Your task to perform on an android device: Do I have any events tomorrow? Image 0: 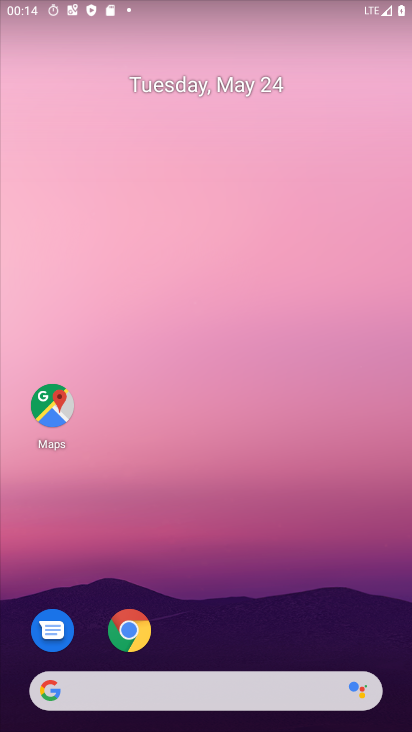
Step 0: drag from (254, 656) to (303, 0)
Your task to perform on an android device: Do I have any events tomorrow? Image 1: 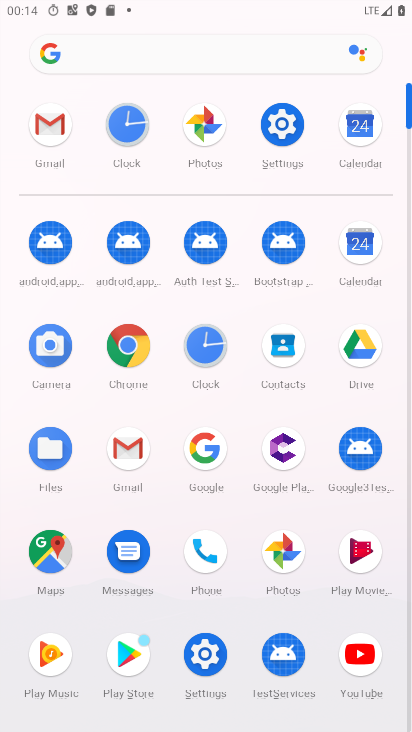
Step 1: click (363, 130)
Your task to perform on an android device: Do I have any events tomorrow? Image 2: 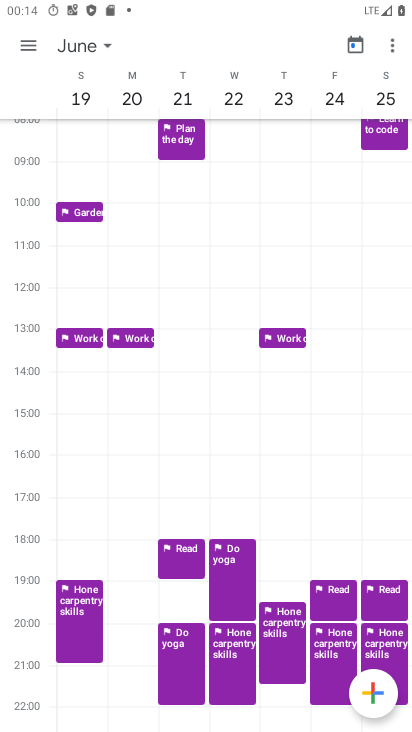
Step 2: click (355, 48)
Your task to perform on an android device: Do I have any events tomorrow? Image 3: 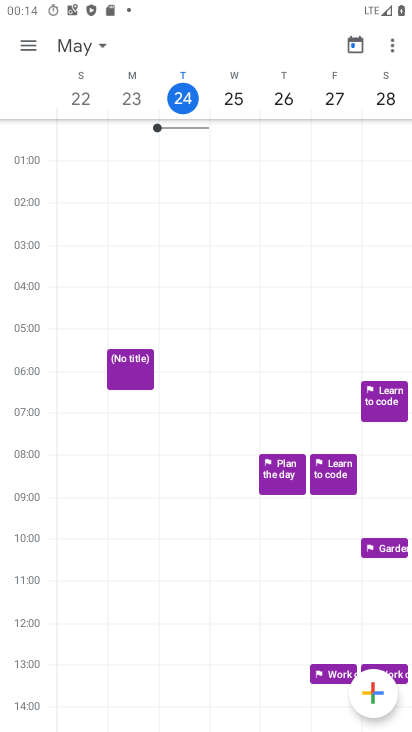
Step 3: click (27, 47)
Your task to perform on an android device: Do I have any events tomorrow? Image 4: 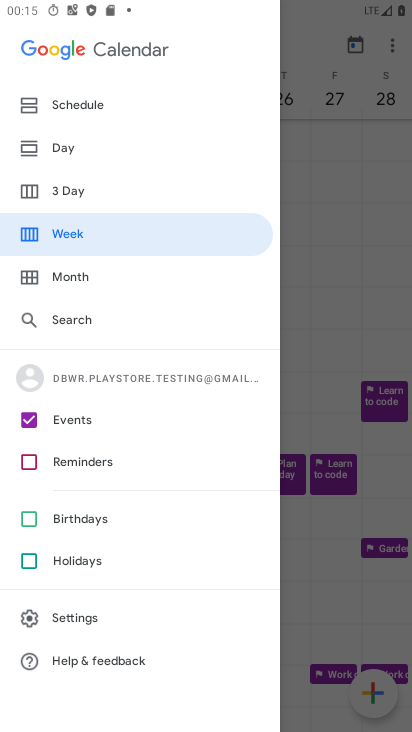
Step 4: click (56, 109)
Your task to perform on an android device: Do I have any events tomorrow? Image 5: 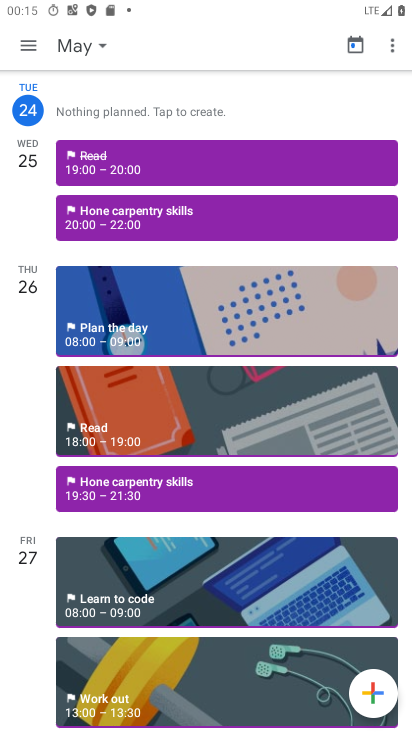
Step 5: click (168, 156)
Your task to perform on an android device: Do I have any events tomorrow? Image 6: 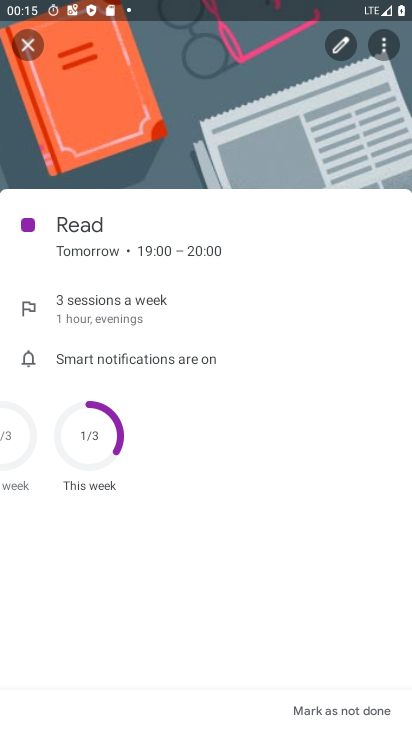
Step 6: task complete